Your task to perform on an android device: change the clock display to digital Image 0: 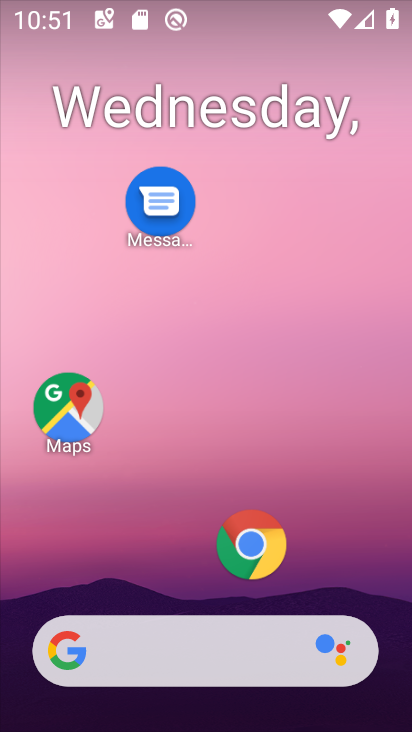
Step 0: drag from (199, 437) to (239, 155)
Your task to perform on an android device: change the clock display to digital Image 1: 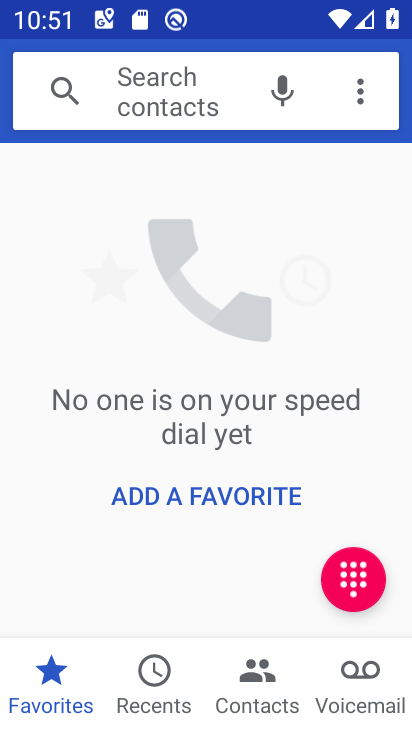
Step 1: press home button
Your task to perform on an android device: change the clock display to digital Image 2: 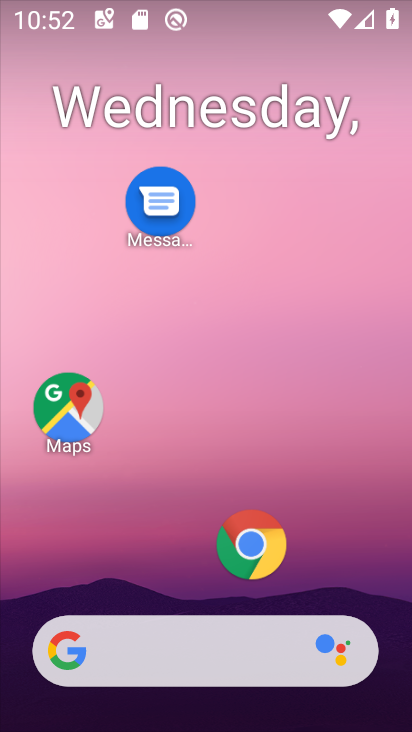
Step 2: drag from (195, 485) to (243, 174)
Your task to perform on an android device: change the clock display to digital Image 3: 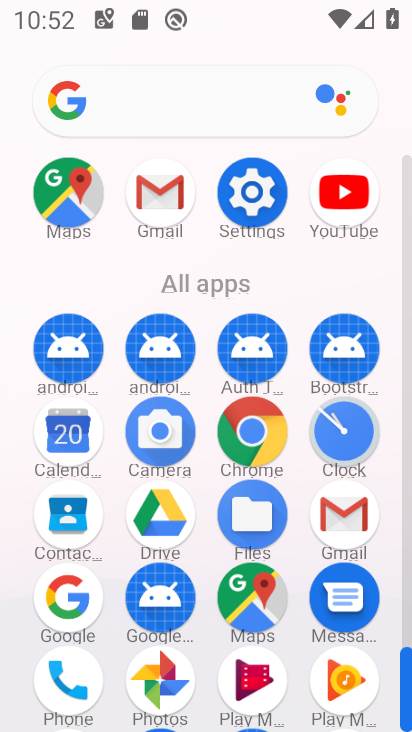
Step 3: click (334, 421)
Your task to perform on an android device: change the clock display to digital Image 4: 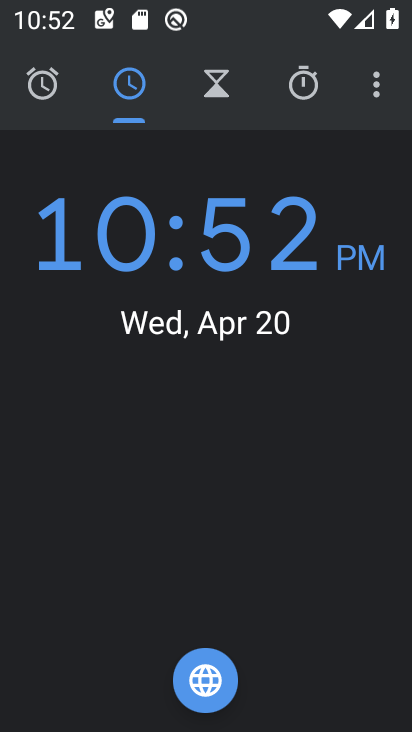
Step 4: click (374, 95)
Your task to perform on an android device: change the clock display to digital Image 5: 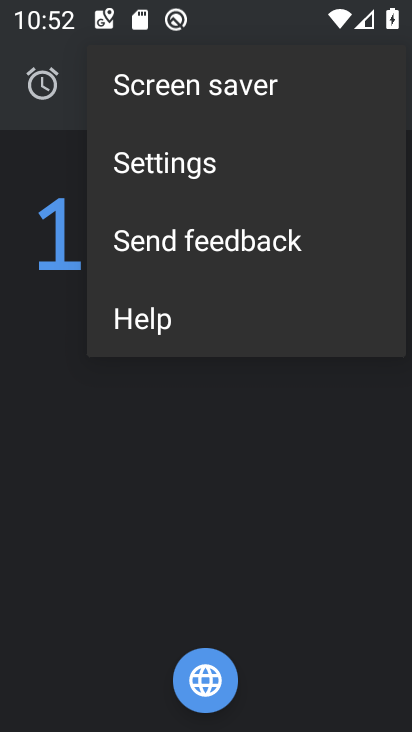
Step 5: click (241, 154)
Your task to perform on an android device: change the clock display to digital Image 6: 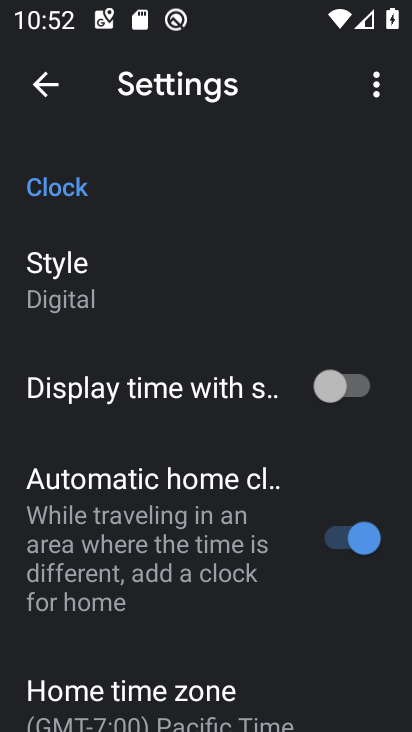
Step 6: click (107, 277)
Your task to perform on an android device: change the clock display to digital Image 7: 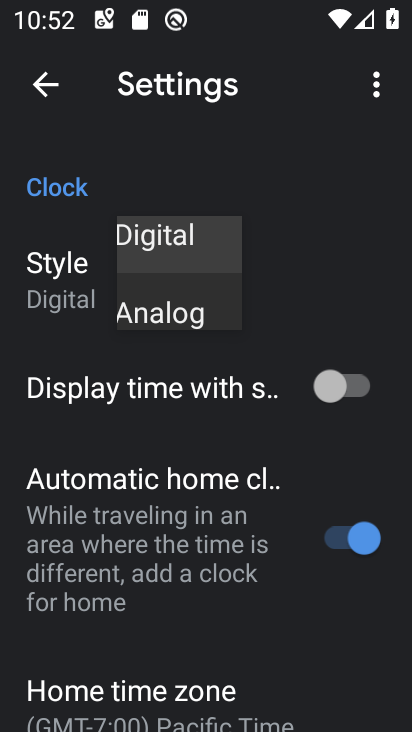
Step 7: task complete